Your task to perform on an android device: open a bookmark in the chrome app Image 0: 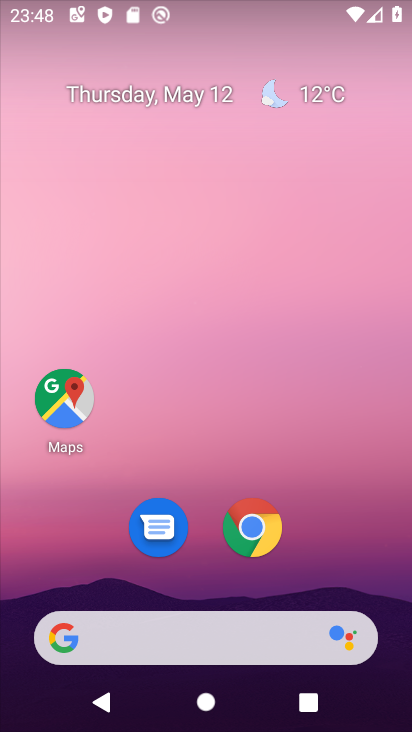
Step 0: click (262, 528)
Your task to perform on an android device: open a bookmark in the chrome app Image 1: 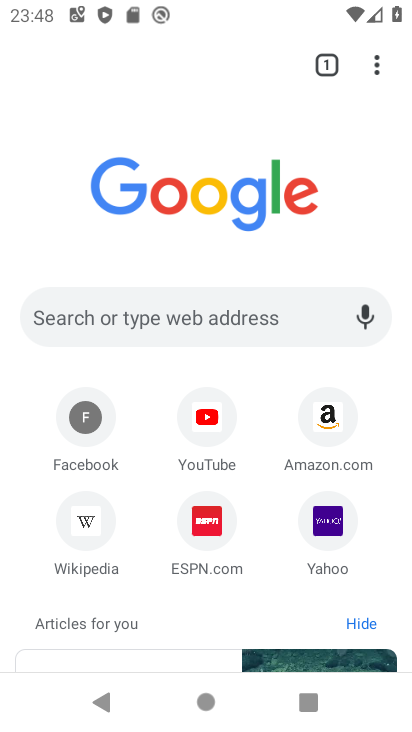
Step 1: click (381, 65)
Your task to perform on an android device: open a bookmark in the chrome app Image 2: 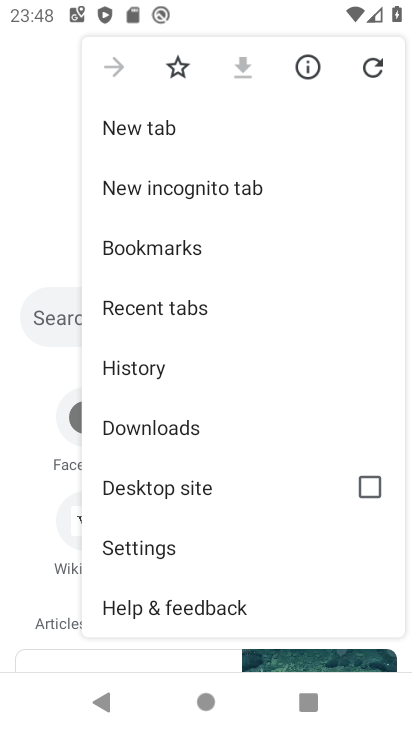
Step 2: click (211, 248)
Your task to perform on an android device: open a bookmark in the chrome app Image 3: 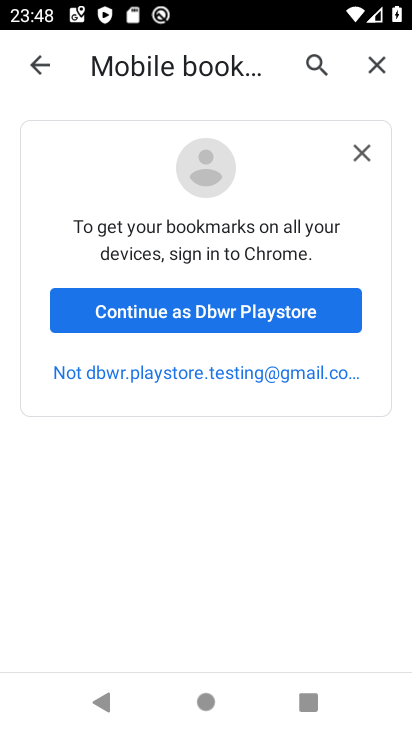
Step 3: click (364, 155)
Your task to perform on an android device: open a bookmark in the chrome app Image 4: 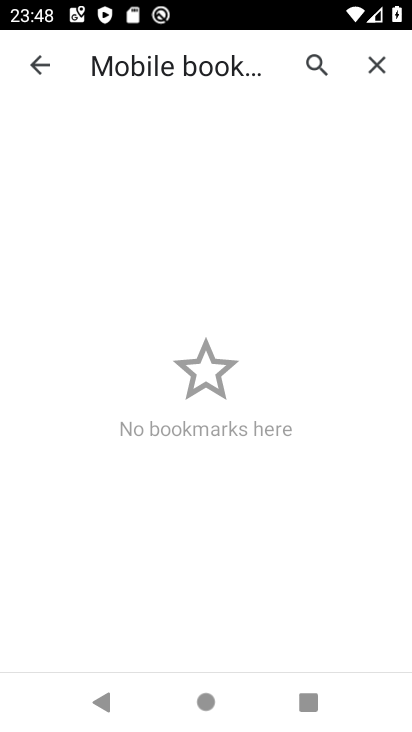
Step 4: task complete